Your task to perform on an android device: Open settings Image 0: 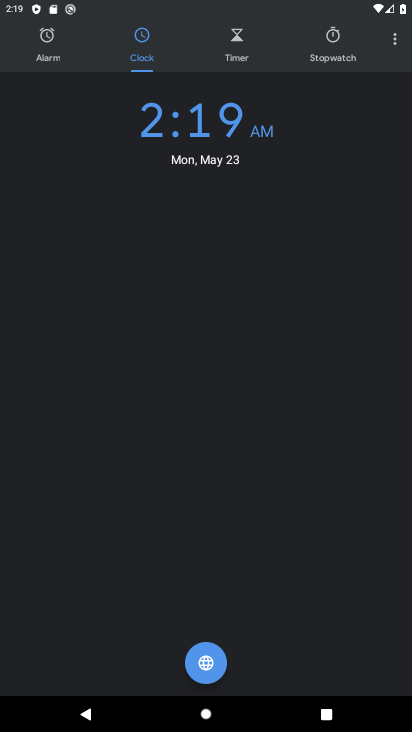
Step 0: press home button
Your task to perform on an android device: Open settings Image 1: 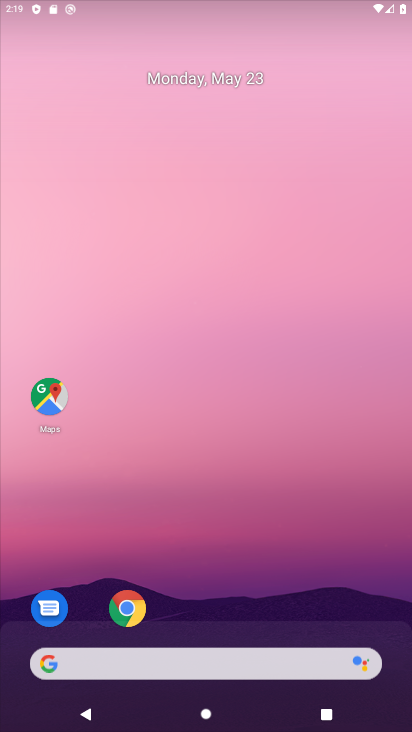
Step 1: drag from (197, 489) to (164, 5)
Your task to perform on an android device: Open settings Image 2: 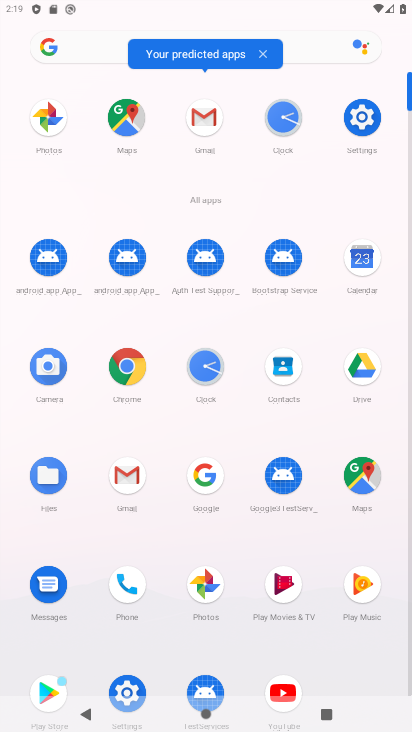
Step 2: click (366, 109)
Your task to perform on an android device: Open settings Image 3: 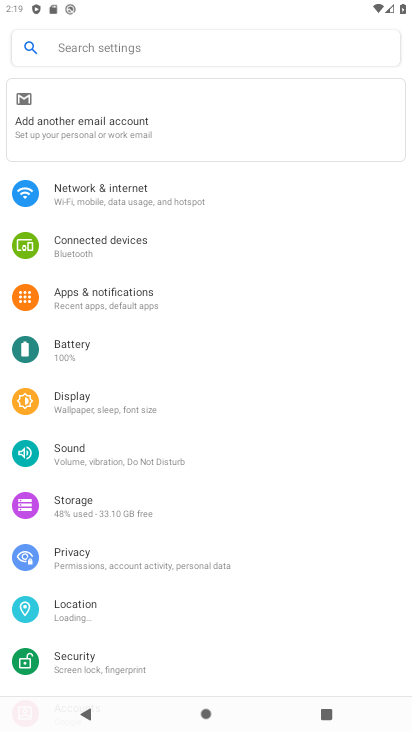
Step 3: task complete